Your task to perform on an android device: check battery use Image 0: 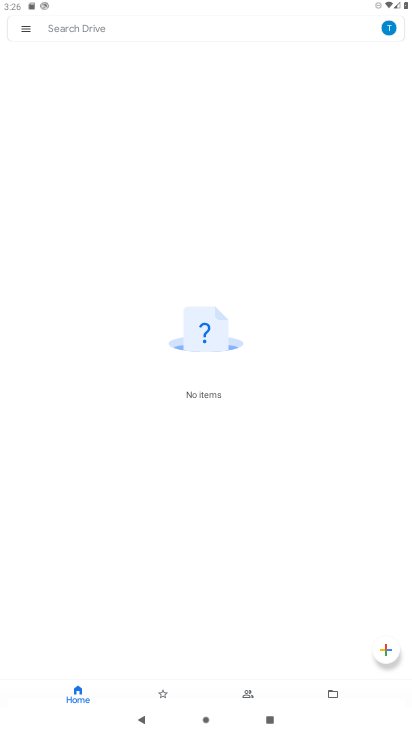
Step 0: press home button
Your task to perform on an android device: check battery use Image 1: 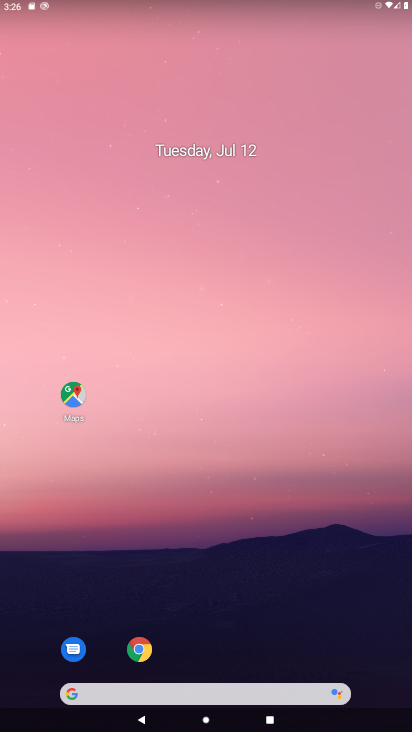
Step 1: drag from (224, 667) to (231, 179)
Your task to perform on an android device: check battery use Image 2: 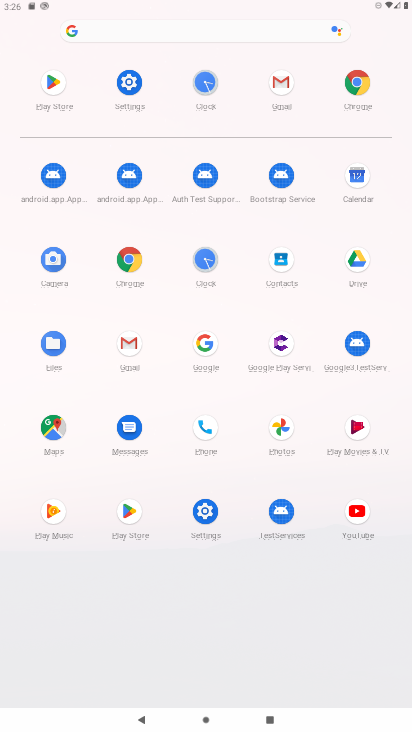
Step 2: click (123, 107)
Your task to perform on an android device: check battery use Image 3: 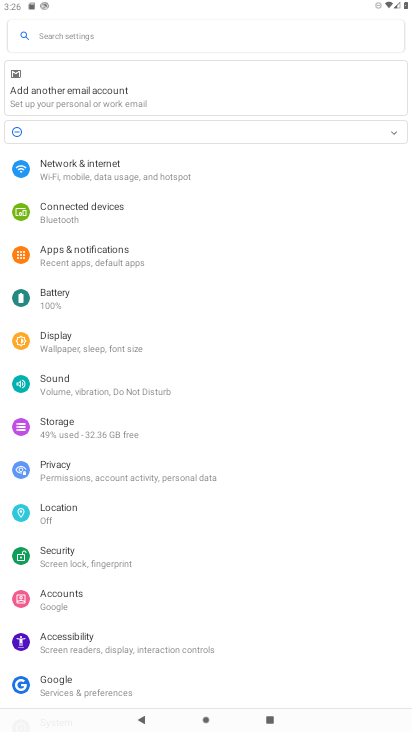
Step 3: click (95, 303)
Your task to perform on an android device: check battery use Image 4: 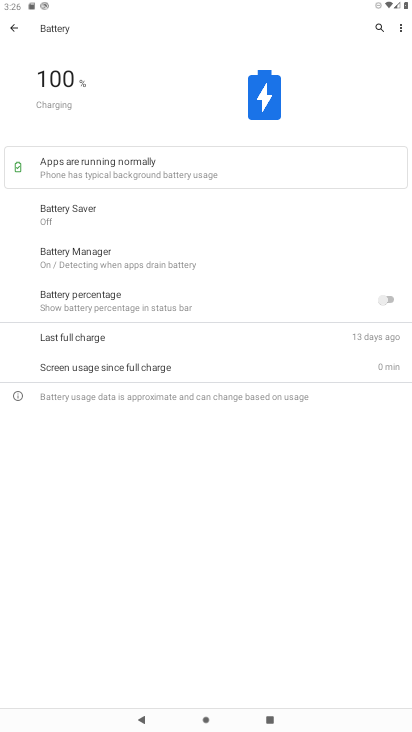
Step 4: task complete